Your task to perform on an android device: change the upload size in google photos Image 0: 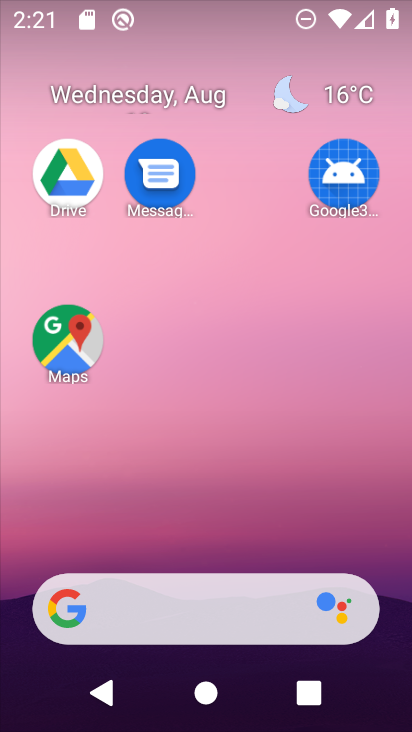
Step 0: drag from (189, 559) to (207, 49)
Your task to perform on an android device: change the upload size in google photos Image 1: 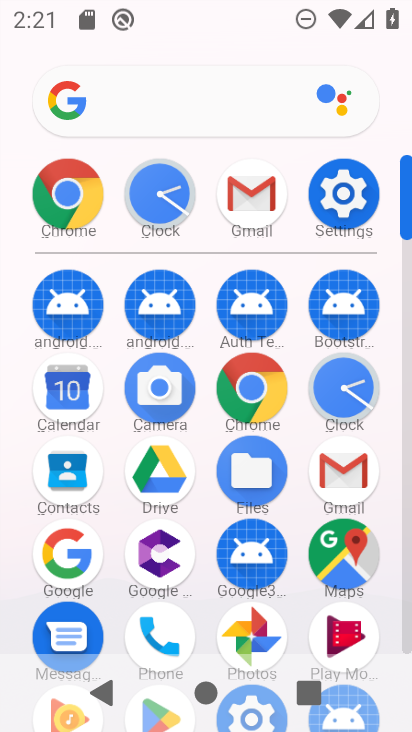
Step 1: click (263, 617)
Your task to perform on an android device: change the upload size in google photos Image 2: 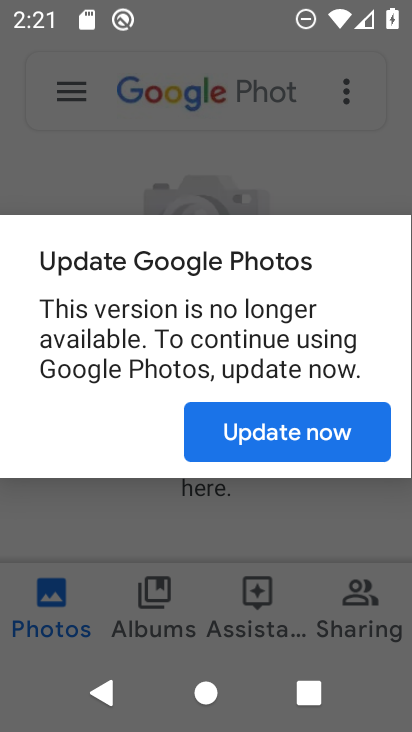
Step 2: click (326, 427)
Your task to perform on an android device: change the upload size in google photos Image 3: 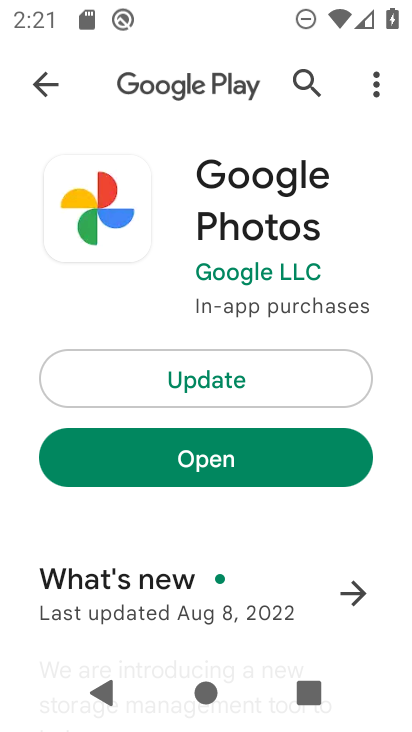
Step 3: click (280, 444)
Your task to perform on an android device: change the upload size in google photos Image 4: 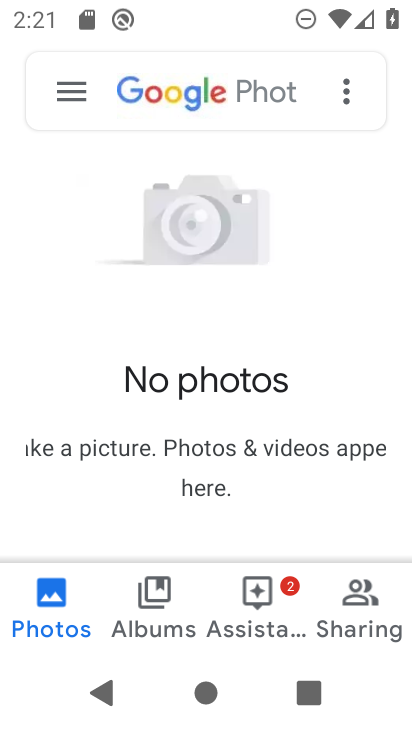
Step 4: click (62, 93)
Your task to perform on an android device: change the upload size in google photos Image 5: 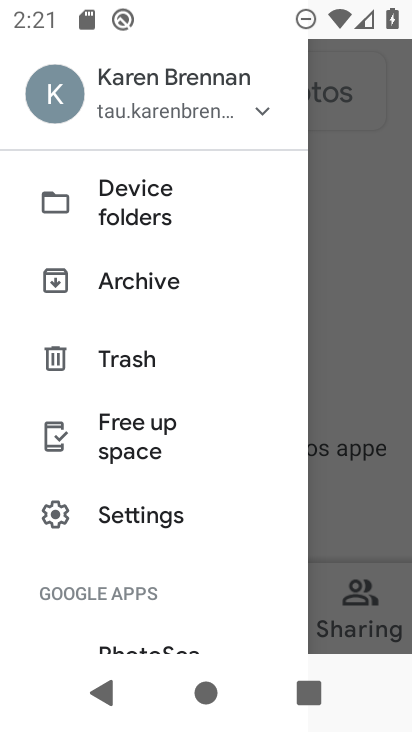
Step 5: click (143, 533)
Your task to perform on an android device: change the upload size in google photos Image 6: 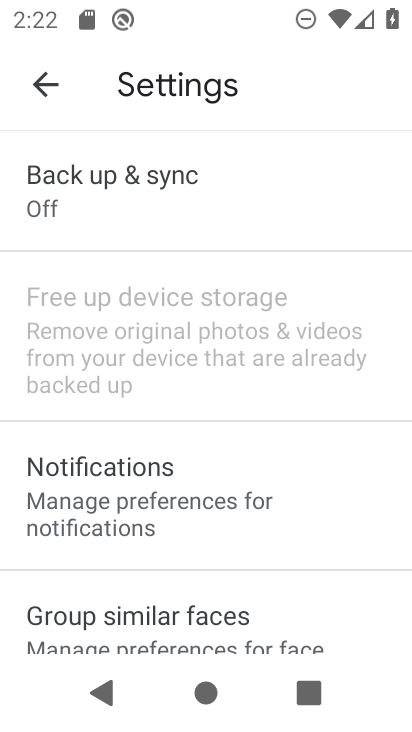
Step 6: drag from (183, 575) to (227, 139)
Your task to perform on an android device: change the upload size in google photos Image 7: 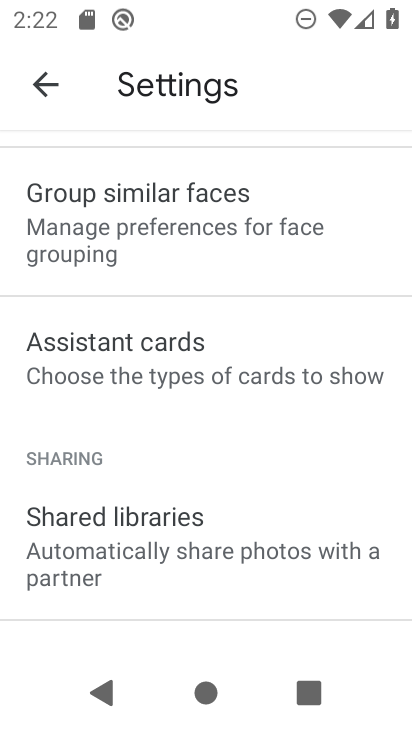
Step 7: drag from (229, 465) to (261, 53)
Your task to perform on an android device: change the upload size in google photos Image 8: 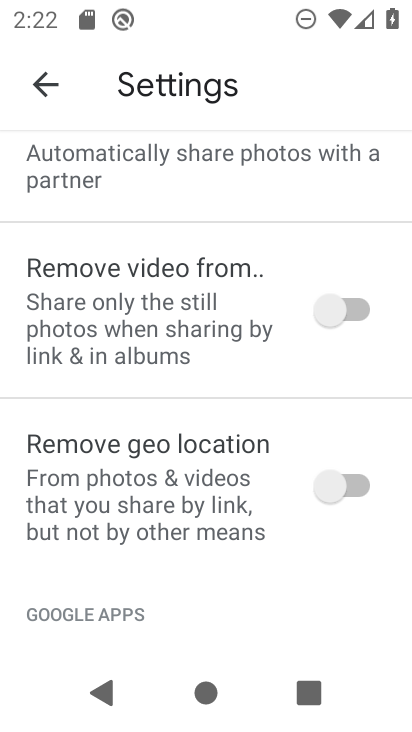
Step 8: drag from (280, 220) to (271, 468)
Your task to perform on an android device: change the upload size in google photos Image 9: 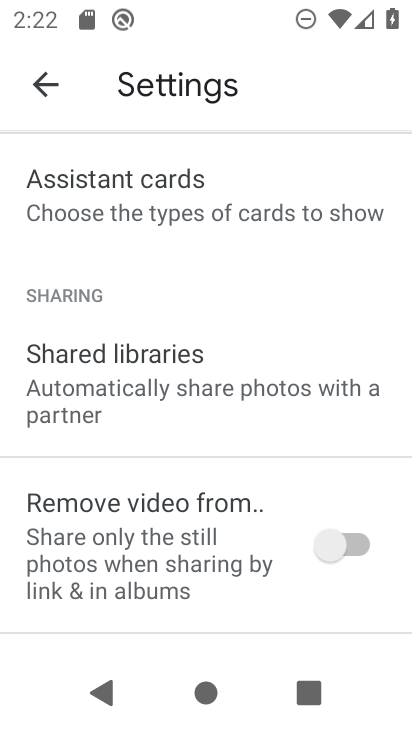
Step 9: drag from (272, 171) to (258, 459)
Your task to perform on an android device: change the upload size in google photos Image 10: 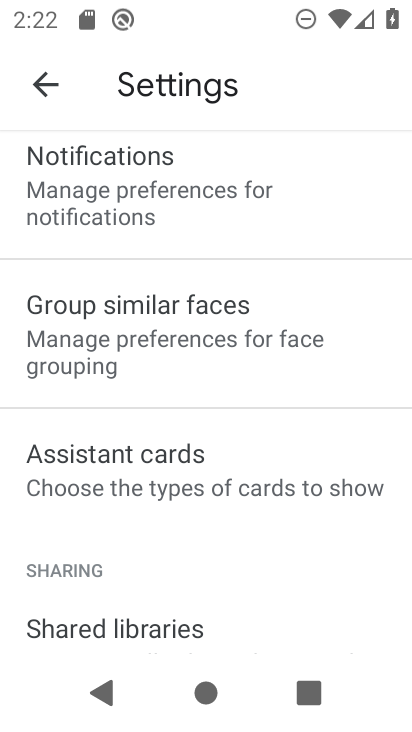
Step 10: drag from (250, 240) to (233, 606)
Your task to perform on an android device: change the upload size in google photos Image 11: 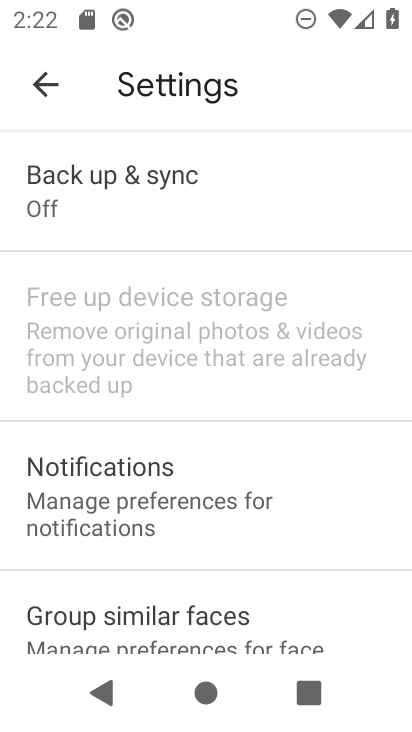
Step 11: drag from (208, 202) to (200, 514)
Your task to perform on an android device: change the upload size in google photos Image 12: 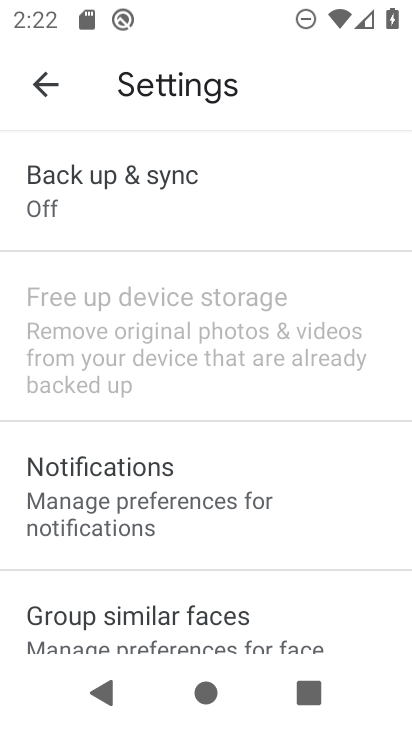
Step 12: click (235, 220)
Your task to perform on an android device: change the upload size in google photos Image 13: 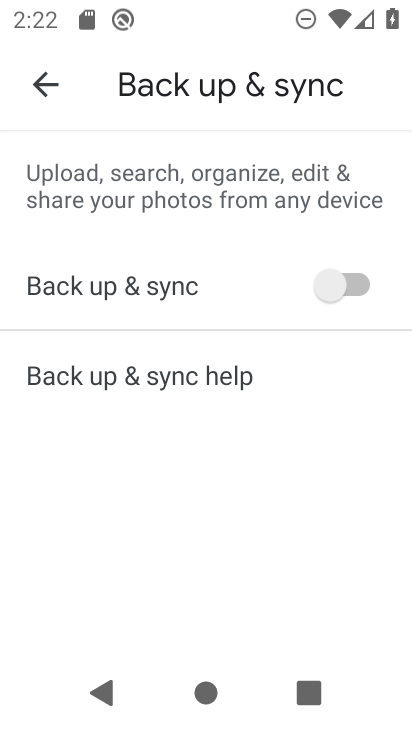
Step 13: click (74, 97)
Your task to perform on an android device: change the upload size in google photos Image 14: 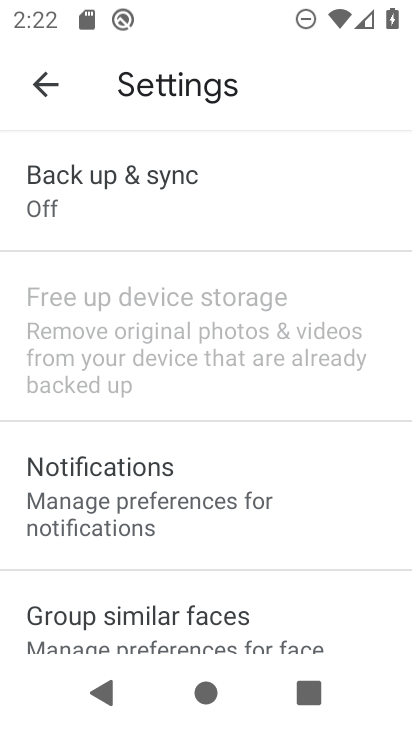
Step 14: drag from (184, 495) to (206, 179)
Your task to perform on an android device: change the upload size in google photos Image 15: 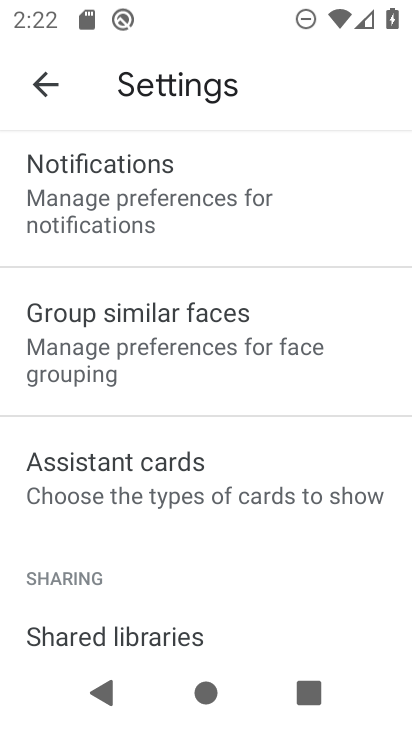
Step 15: drag from (172, 551) to (236, 134)
Your task to perform on an android device: change the upload size in google photos Image 16: 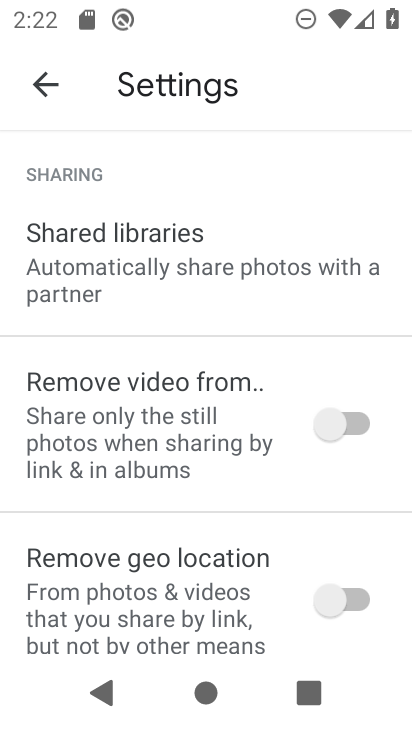
Step 16: drag from (212, 487) to (239, 159)
Your task to perform on an android device: change the upload size in google photos Image 17: 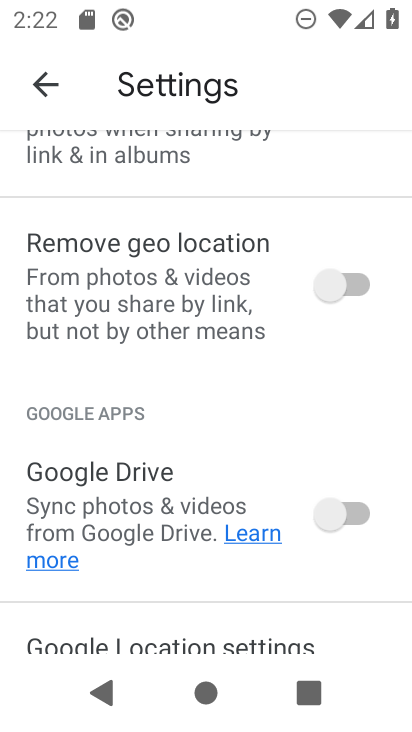
Step 17: drag from (206, 565) to (249, 147)
Your task to perform on an android device: change the upload size in google photos Image 18: 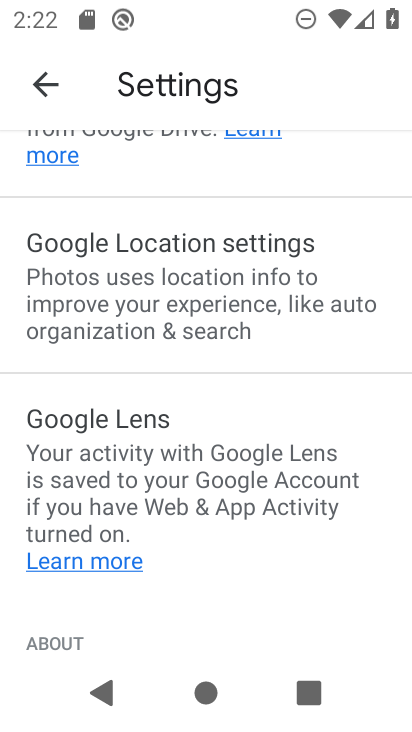
Step 18: drag from (165, 527) to (224, 183)
Your task to perform on an android device: change the upload size in google photos Image 19: 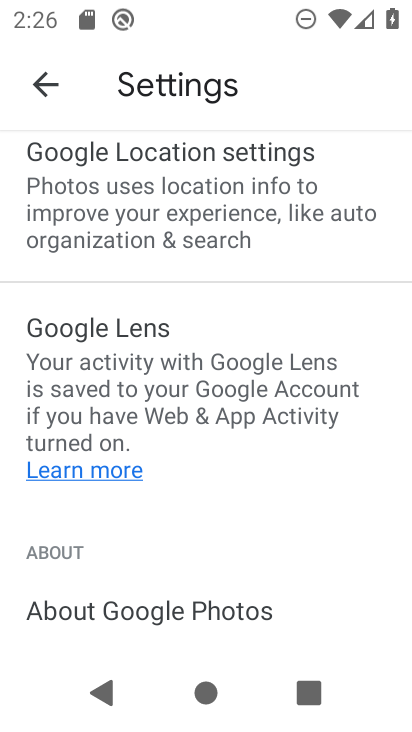
Step 19: press home button
Your task to perform on an android device: change the upload size in google photos Image 20: 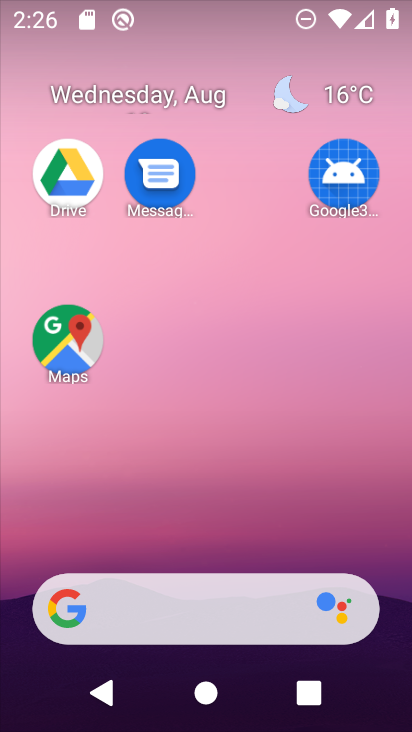
Step 20: drag from (216, 525) to (187, 33)
Your task to perform on an android device: change the upload size in google photos Image 21: 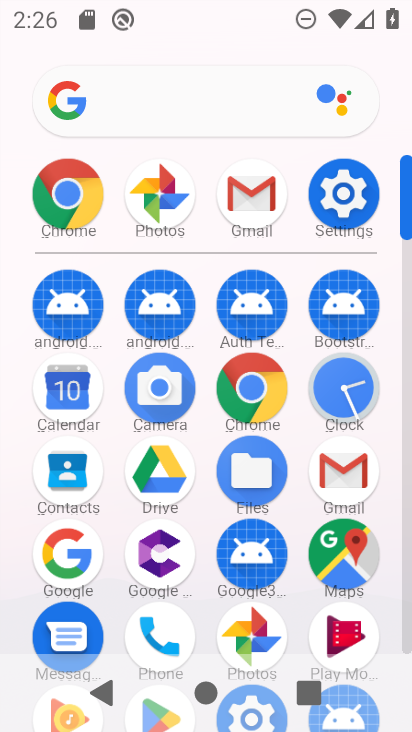
Step 21: click (166, 198)
Your task to perform on an android device: change the upload size in google photos Image 22: 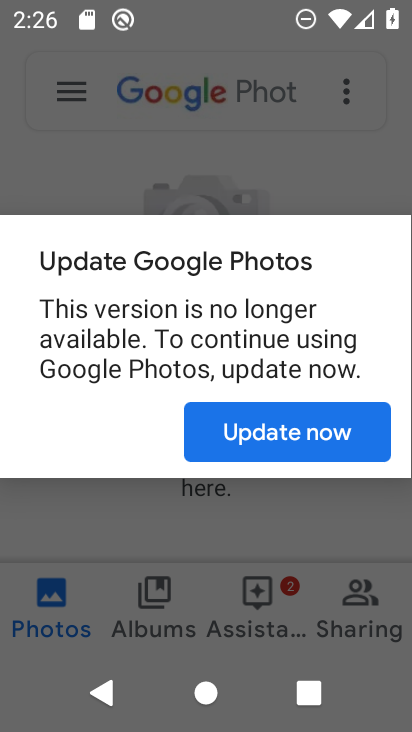
Step 22: click (272, 432)
Your task to perform on an android device: change the upload size in google photos Image 23: 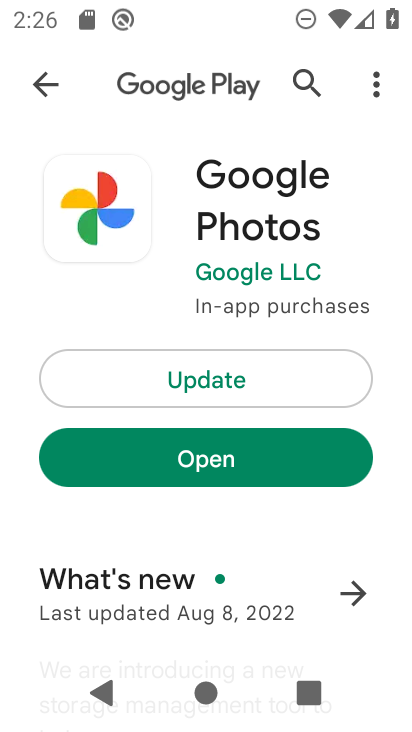
Step 23: click (218, 447)
Your task to perform on an android device: change the upload size in google photos Image 24: 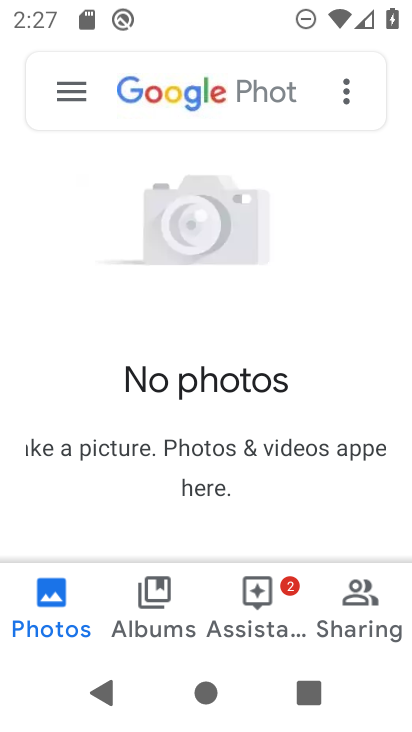
Step 24: click (59, 102)
Your task to perform on an android device: change the upload size in google photos Image 25: 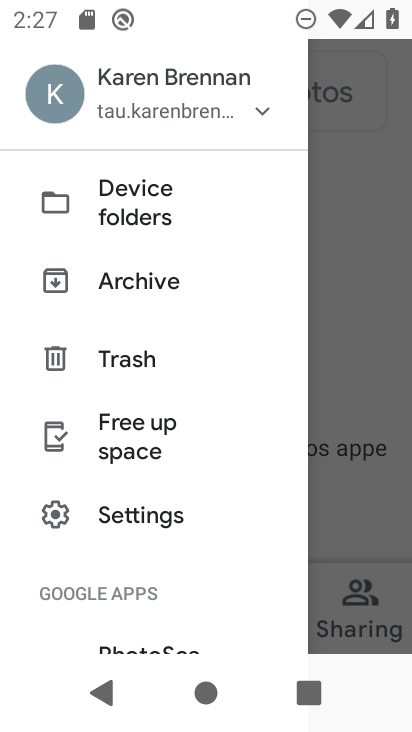
Step 25: click (177, 542)
Your task to perform on an android device: change the upload size in google photos Image 26: 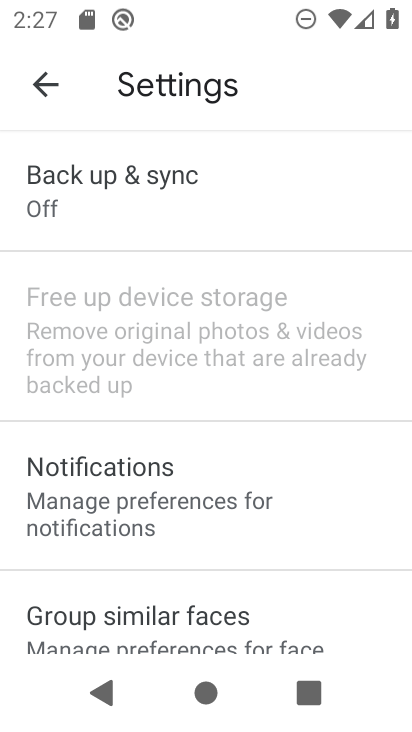
Step 26: click (215, 157)
Your task to perform on an android device: change the upload size in google photos Image 27: 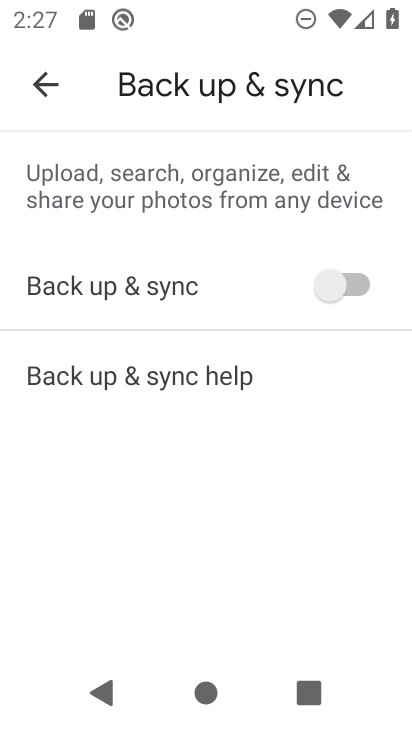
Step 27: click (350, 283)
Your task to perform on an android device: change the upload size in google photos Image 28: 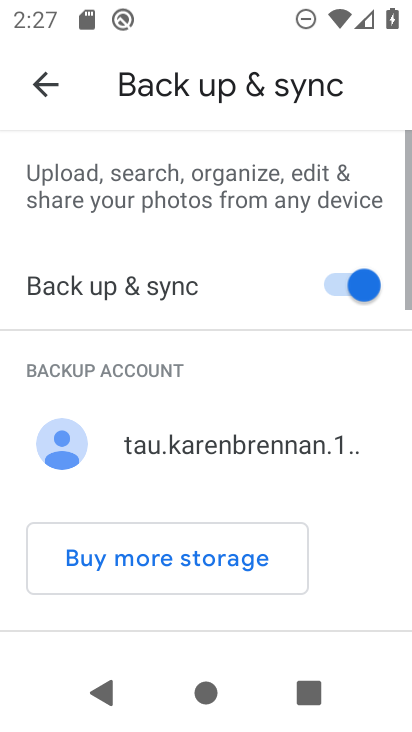
Step 28: drag from (213, 420) to (203, 30)
Your task to perform on an android device: change the upload size in google photos Image 29: 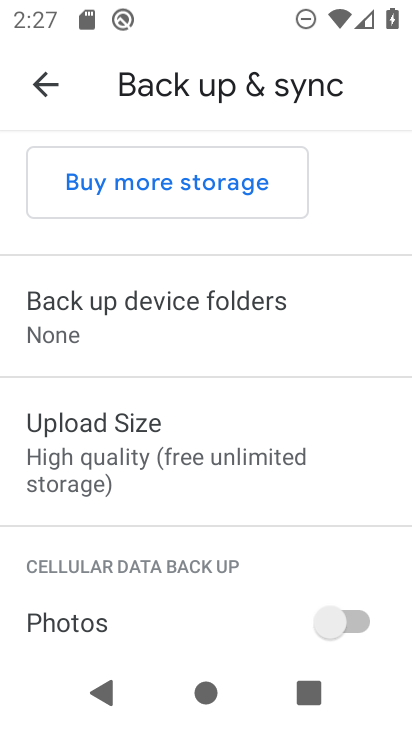
Step 29: drag from (107, 551) to (140, 195)
Your task to perform on an android device: change the upload size in google photos Image 30: 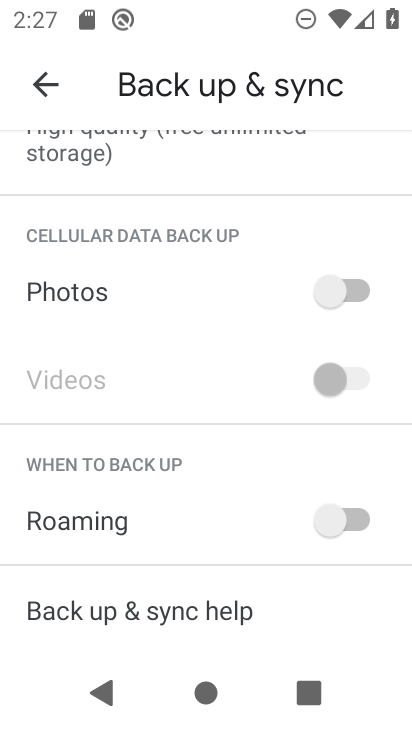
Step 30: click (144, 145)
Your task to perform on an android device: change the upload size in google photos Image 31: 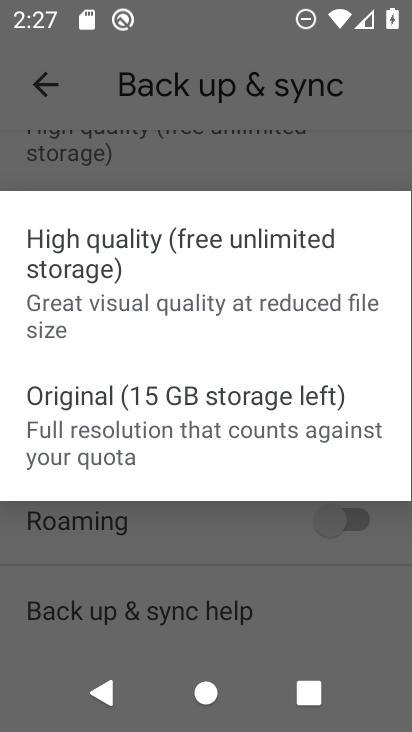
Step 31: click (124, 408)
Your task to perform on an android device: change the upload size in google photos Image 32: 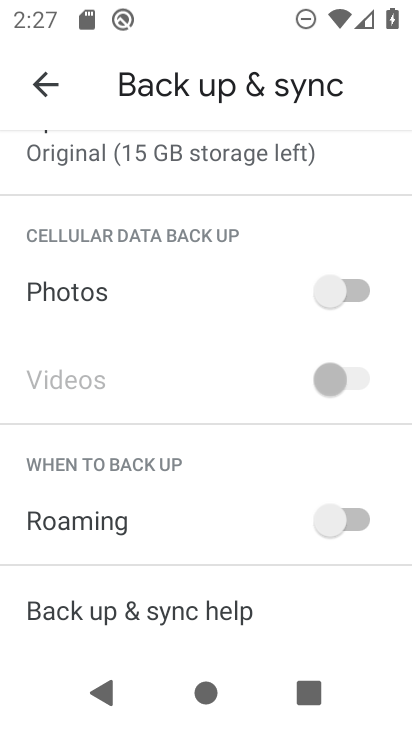
Step 32: task complete